Your task to perform on an android device: Open ESPN.com Image 0: 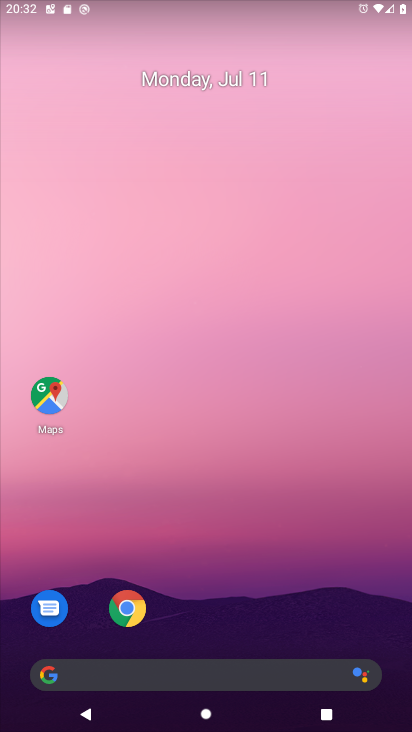
Step 0: click (146, 610)
Your task to perform on an android device: Open ESPN.com Image 1: 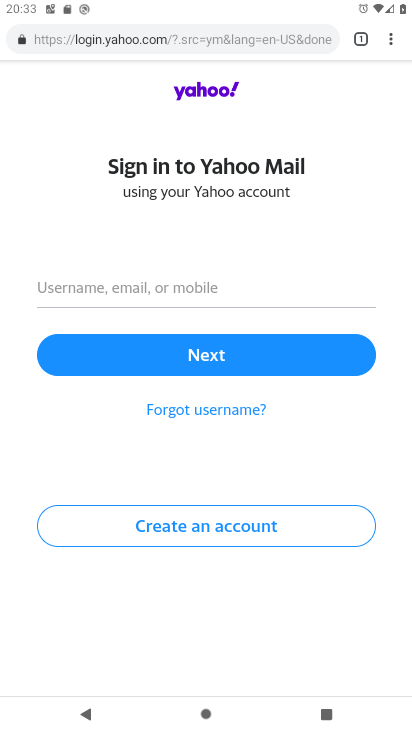
Step 1: click (279, 41)
Your task to perform on an android device: Open ESPN.com Image 2: 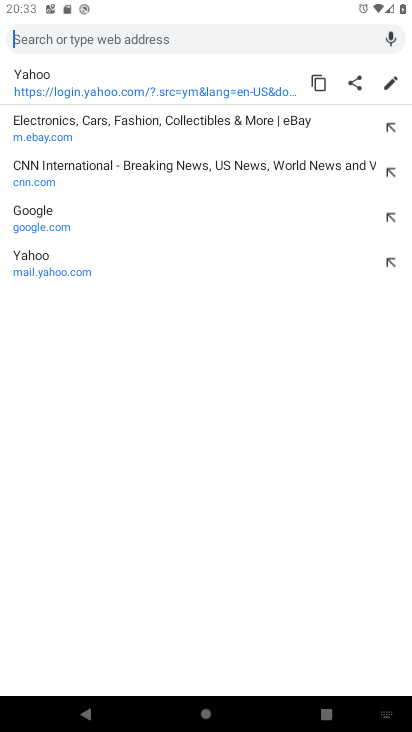
Step 2: type "espn.com"
Your task to perform on an android device: Open ESPN.com Image 3: 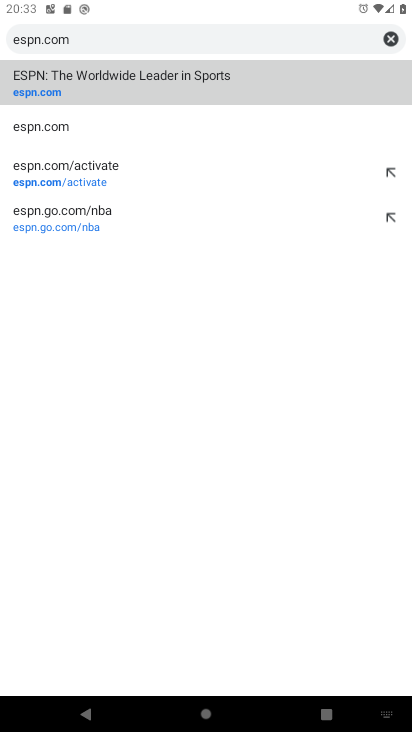
Step 3: click (288, 72)
Your task to perform on an android device: Open ESPN.com Image 4: 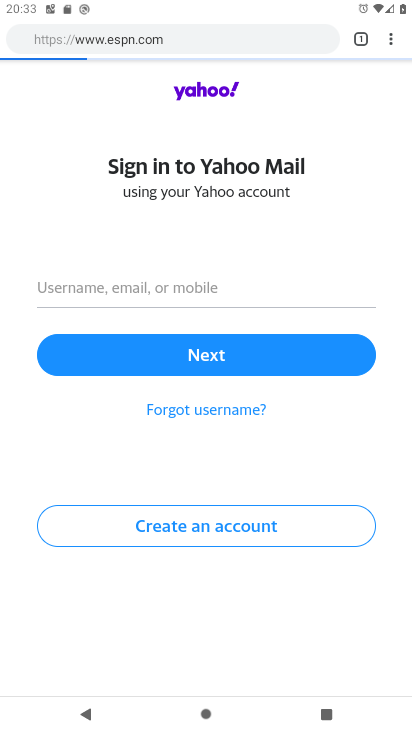
Step 4: task complete